Your task to perform on an android device: Open maps Image 0: 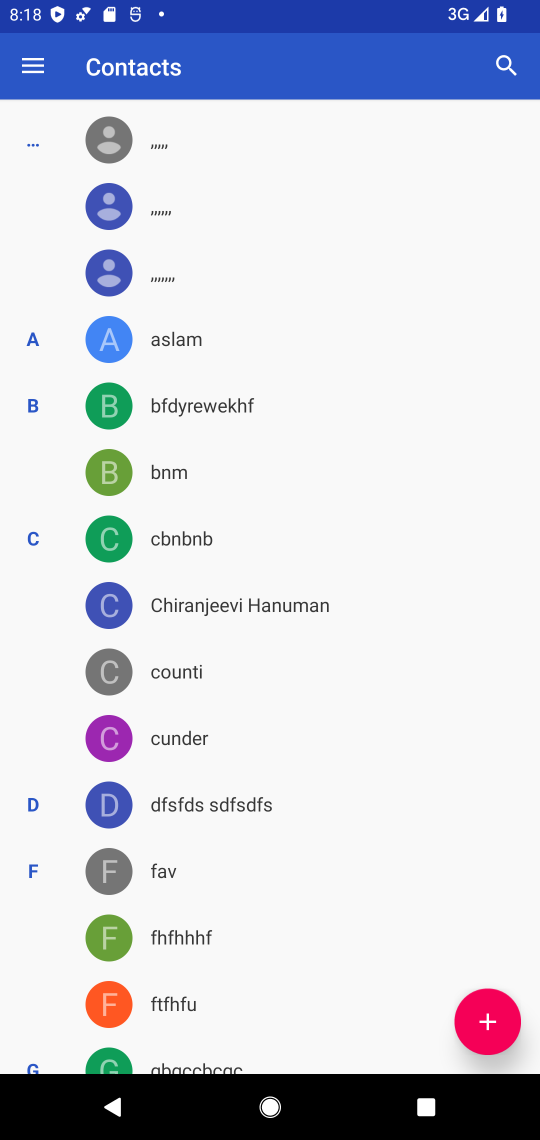
Step 0: press home button
Your task to perform on an android device: Open maps Image 1: 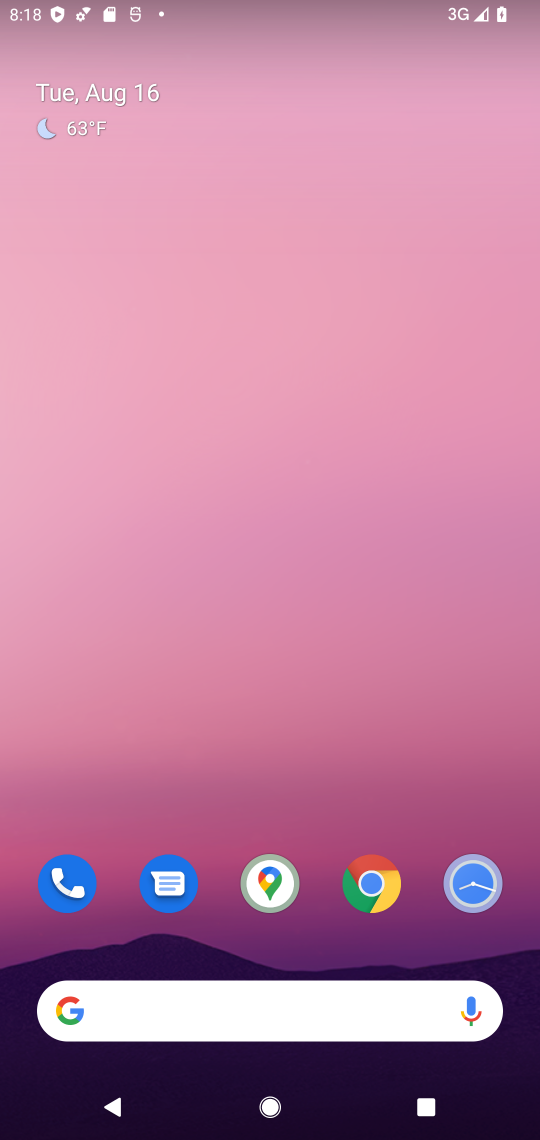
Step 1: click (262, 887)
Your task to perform on an android device: Open maps Image 2: 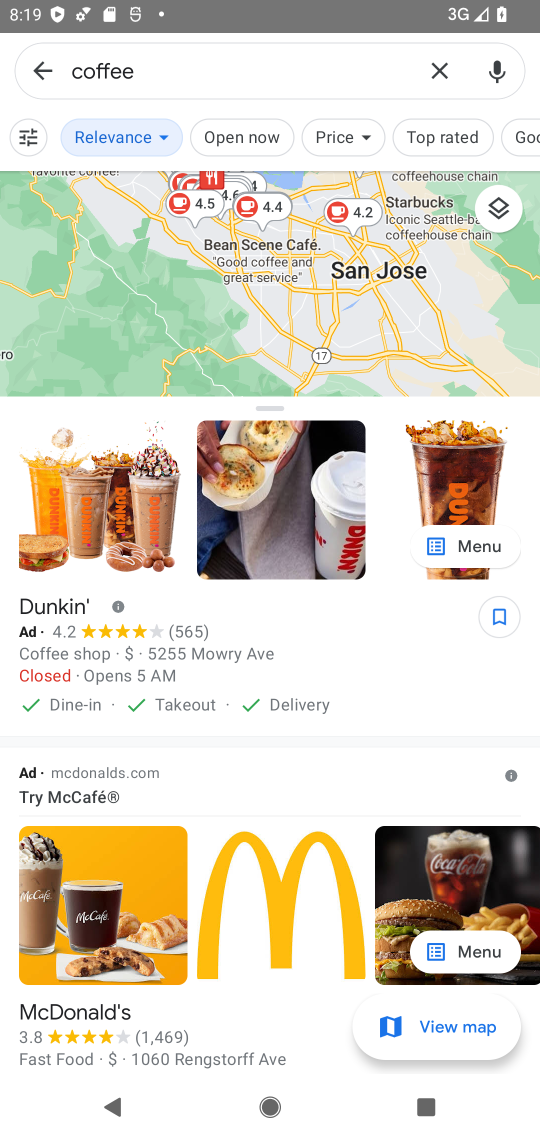
Step 2: task complete